Your task to perform on an android device: turn off javascript in the chrome app Image 0: 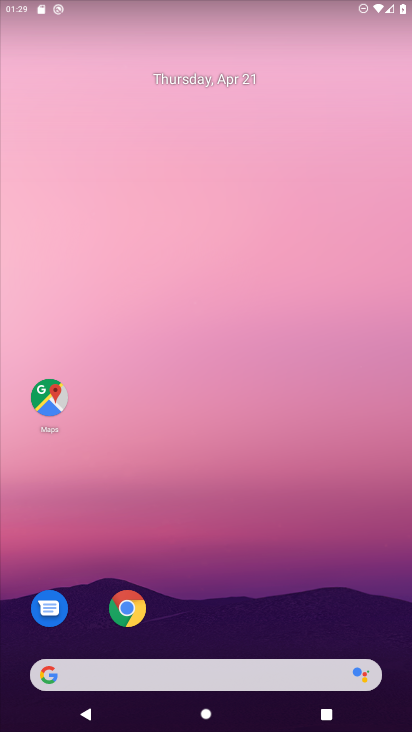
Step 0: drag from (245, 282) to (243, 168)
Your task to perform on an android device: turn off javascript in the chrome app Image 1: 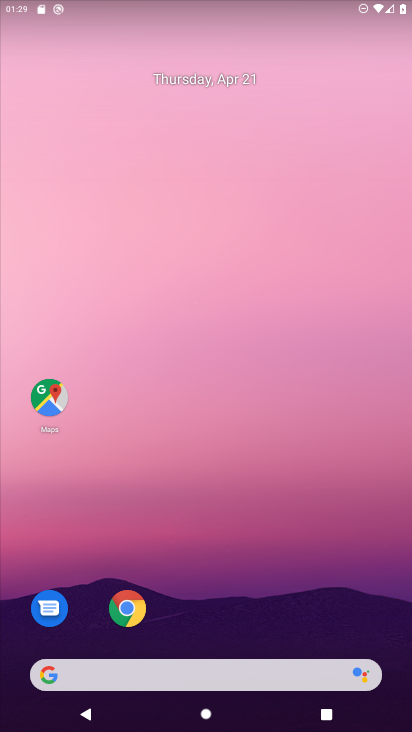
Step 1: drag from (246, 588) to (293, 174)
Your task to perform on an android device: turn off javascript in the chrome app Image 2: 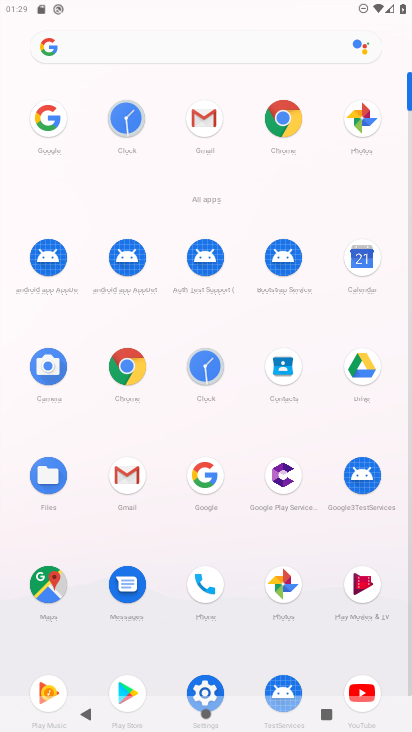
Step 2: click (285, 116)
Your task to perform on an android device: turn off javascript in the chrome app Image 3: 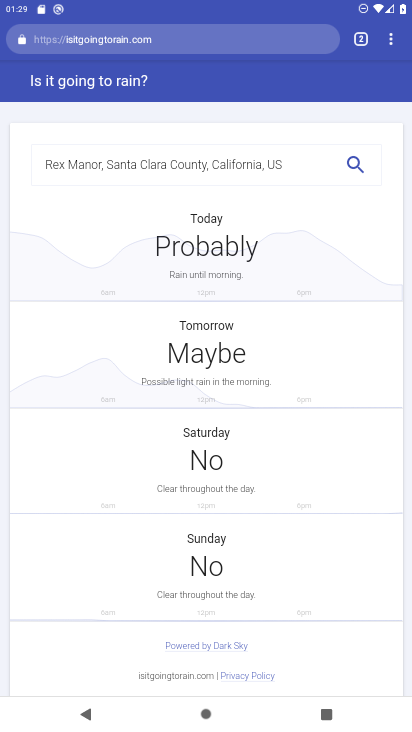
Step 3: click (384, 35)
Your task to perform on an android device: turn off javascript in the chrome app Image 4: 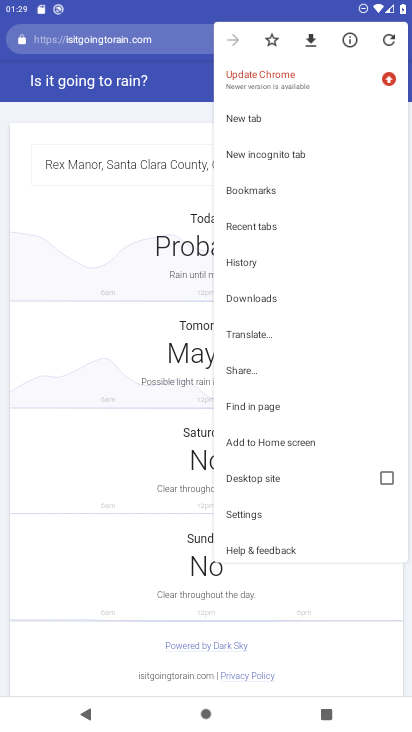
Step 4: click (249, 508)
Your task to perform on an android device: turn off javascript in the chrome app Image 5: 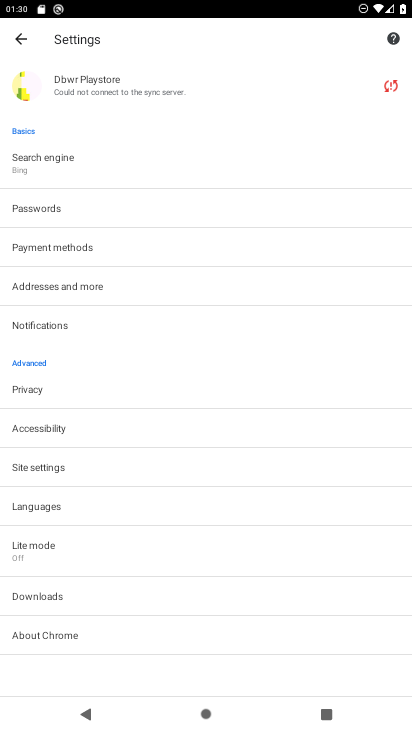
Step 5: click (103, 470)
Your task to perform on an android device: turn off javascript in the chrome app Image 6: 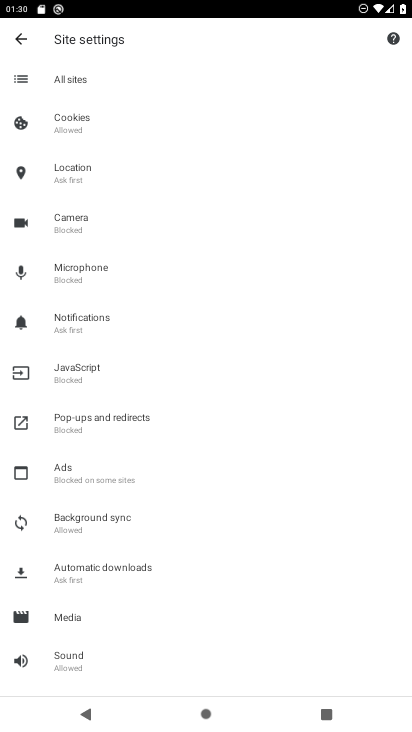
Step 6: click (87, 384)
Your task to perform on an android device: turn off javascript in the chrome app Image 7: 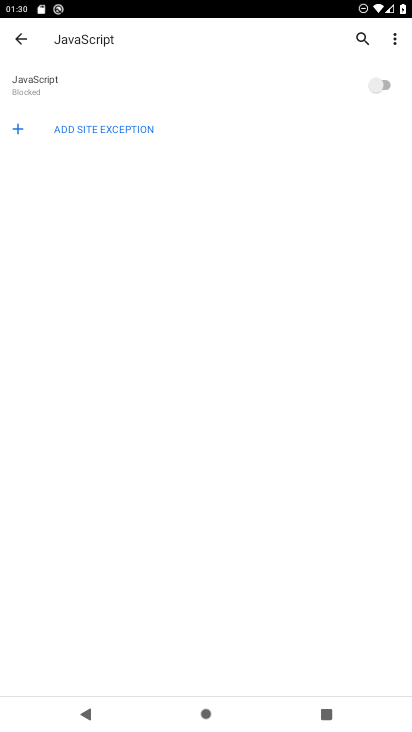
Step 7: task complete